Your task to perform on an android device: find snoozed emails in the gmail app Image 0: 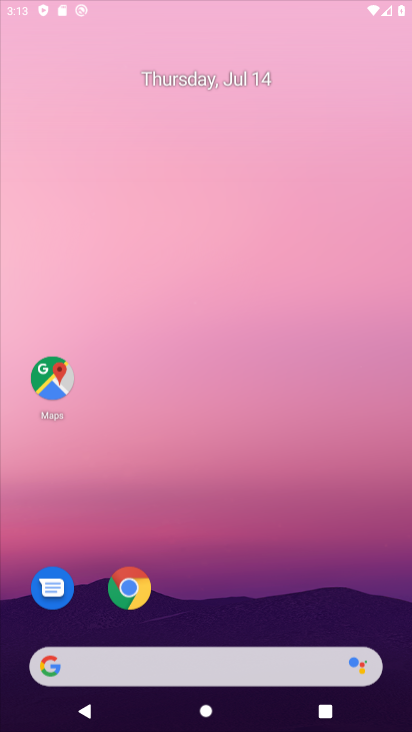
Step 0: press home button
Your task to perform on an android device: find snoozed emails in the gmail app Image 1: 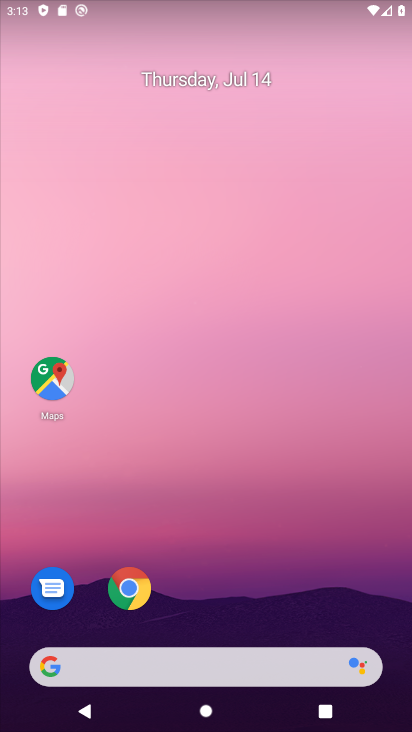
Step 1: drag from (227, 640) to (189, 57)
Your task to perform on an android device: find snoozed emails in the gmail app Image 2: 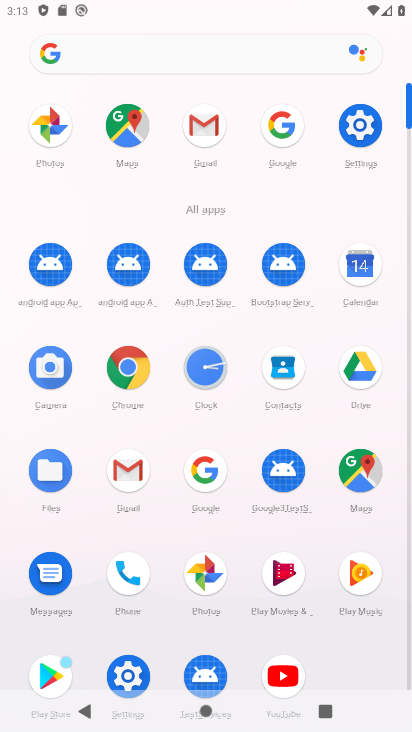
Step 2: click (203, 122)
Your task to perform on an android device: find snoozed emails in the gmail app Image 3: 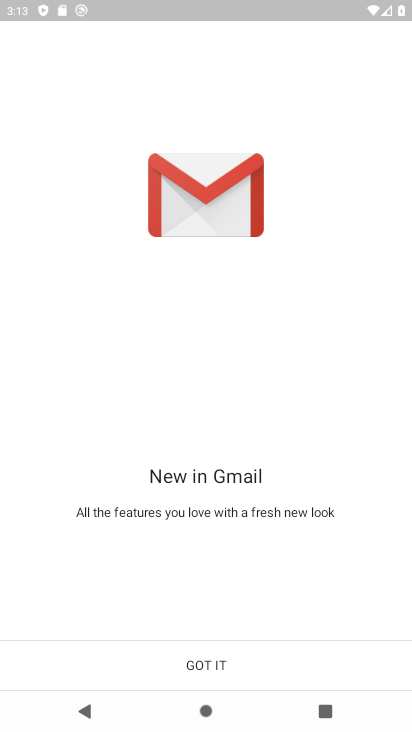
Step 3: click (193, 672)
Your task to perform on an android device: find snoozed emails in the gmail app Image 4: 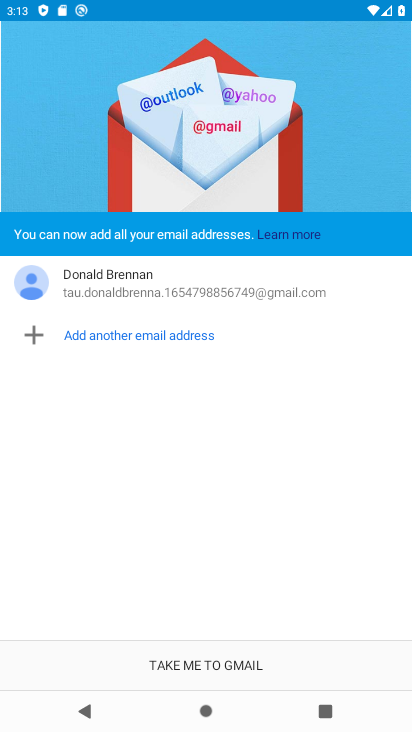
Step 4: click (206, 657)
Your task to perform on an android device: find snoozed emails in the gmail app Image 5: 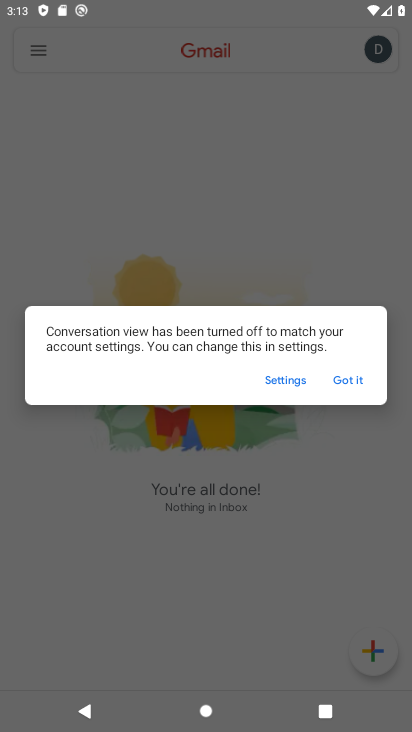
Step 5: click (340, 390)
Your task to perform on an android device: find snoozed emails in the gmail app Image 6: 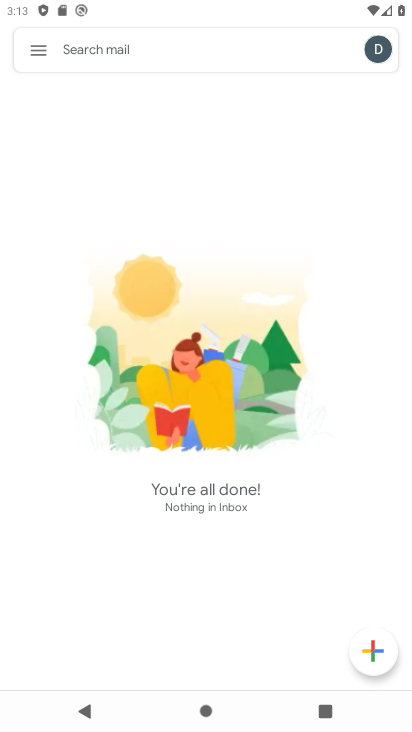
Step 6: click (39, 66)
Your task to perform on an android device: find snoozed emails in the gmail app Image 7: 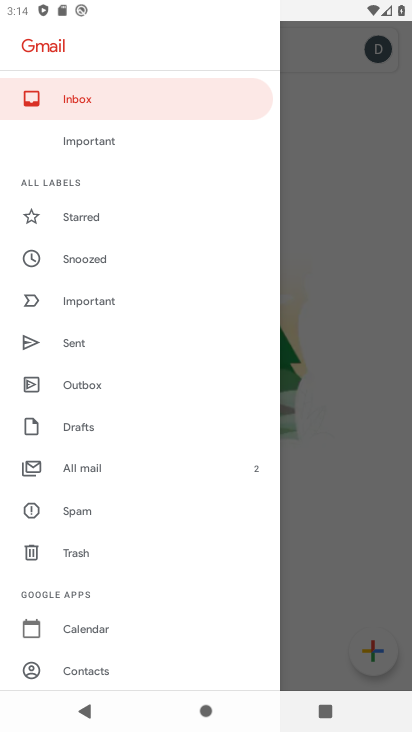
Step 7: click (86, 260)
Your task to perform on an android device: find snoozed emails in the gmail app Image 8: 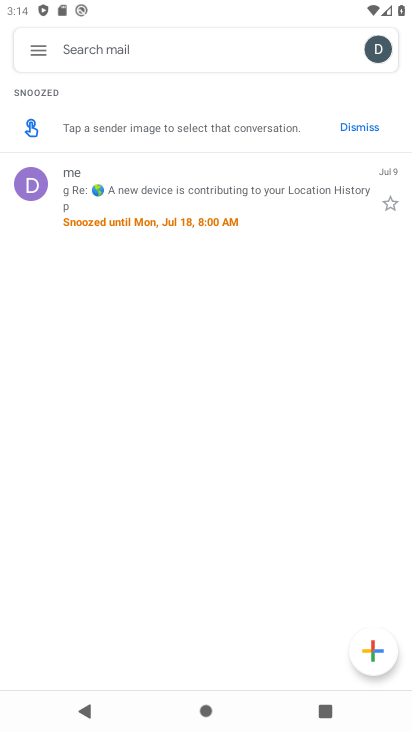
Step 8: click (198, 205)
Your task to perform on an android device: find snoozed emails in the gmail app Image 9: 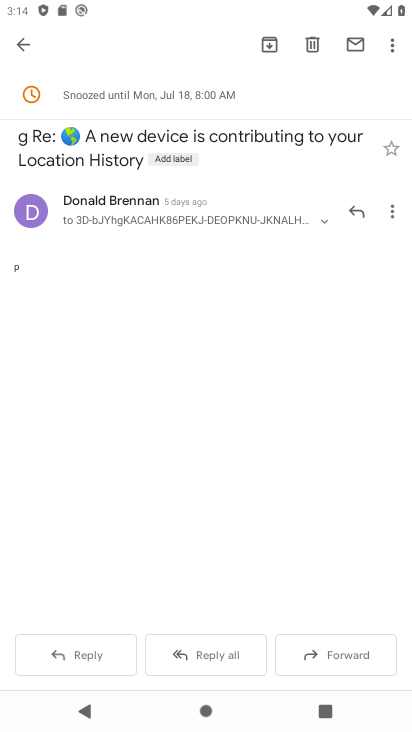
Step 9: task complete